Your task to perform on an android device: Show me productivity apps on the Play Store Image 0: 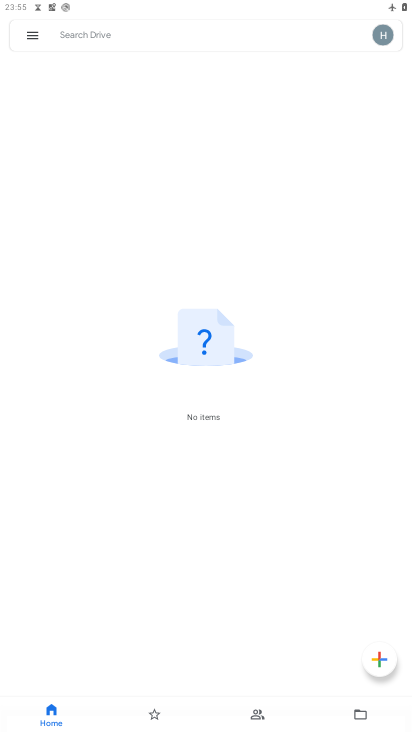
Step 0: press home button
Your task to perform on an android device: Show me productivity apps on the Play Store Image 1: 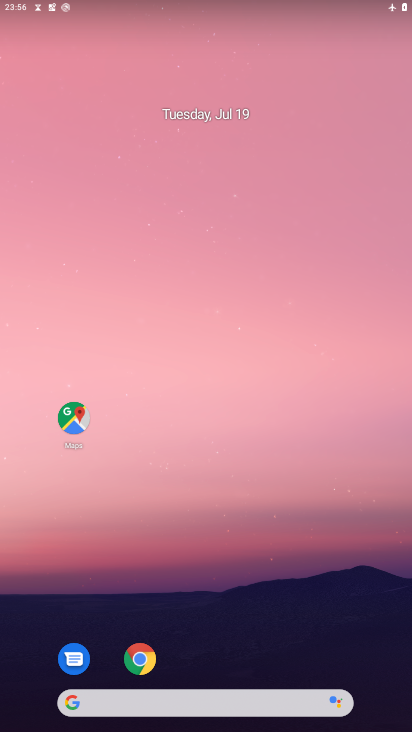
Step 1: drag from (285, 592) to (230, 165)
Your task to perform on an android device: Show me productivity apps on the Play Store Image 2: 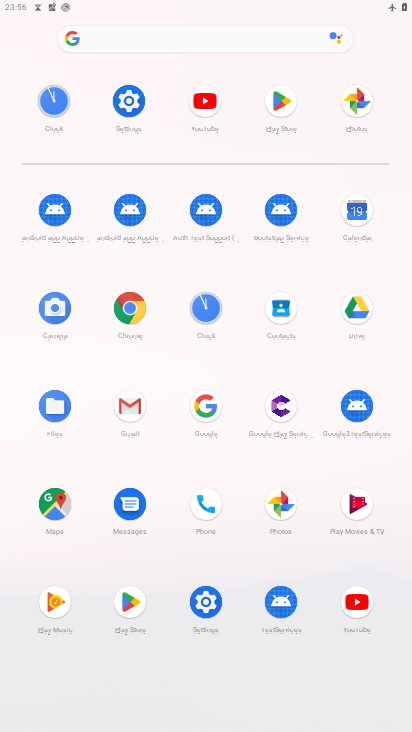
Step 2: click (126, 602)
Your task to perform on an android device: Show me productivity apps on the Play Store Image 3: 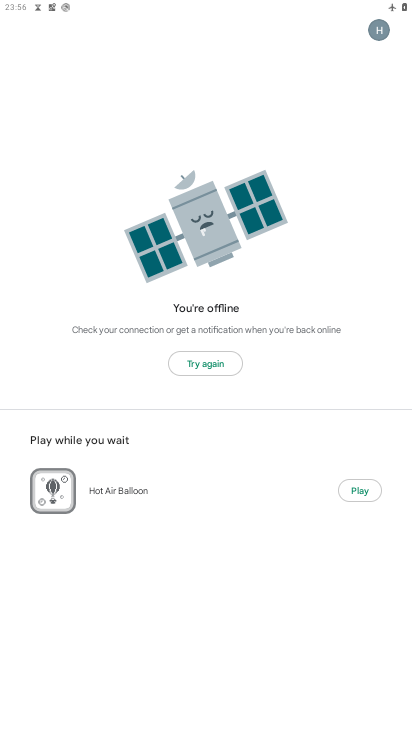
Step 3: click (216, 365)
Your task to perform on an android device: Show me productivity apps on the Play Store Image 4: 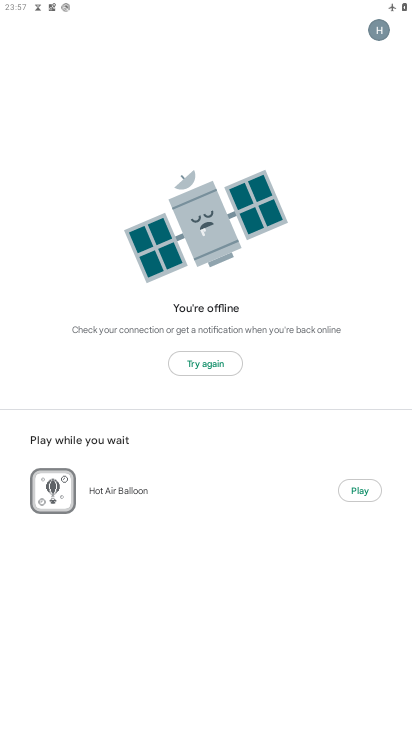
Step 4: task complete